Your task to perform on an android device: Go to Google maps Image 0: 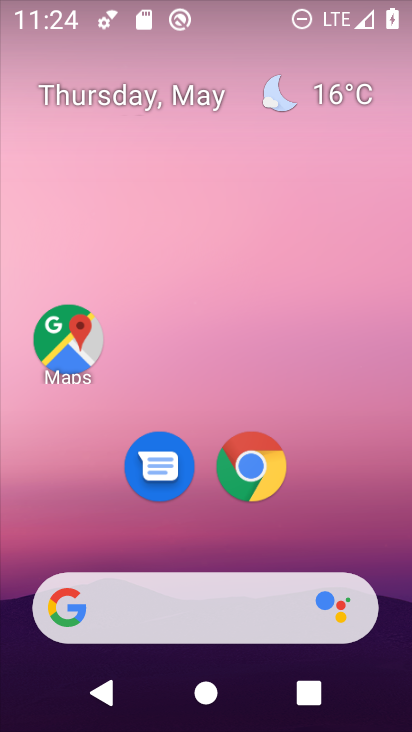
Step 0: click (61, 356)
Your task to perform on an android device: Go to Google maps Image 1: 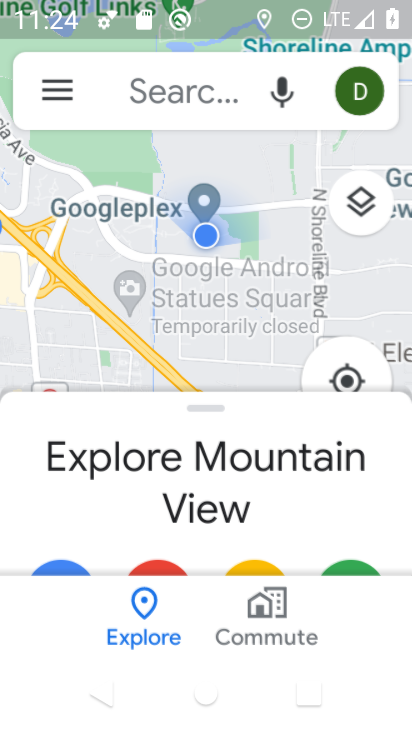
Step 1: task complete